Your task to perform on an android device: Open ESPN.com Image 0: 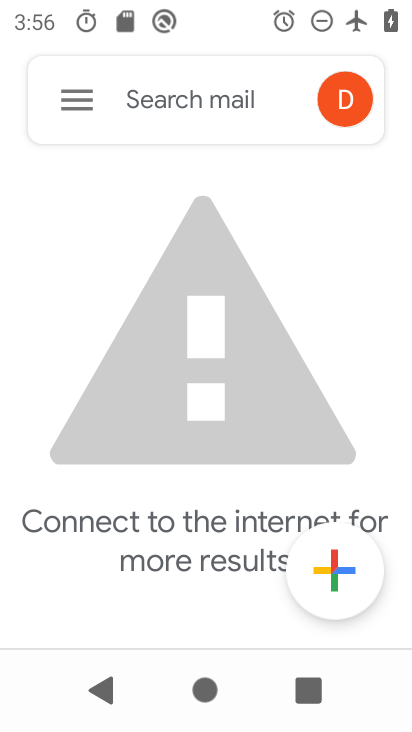
Step 0: press home button
Your task to perform on an android device: Open ESPN.com Image 1: 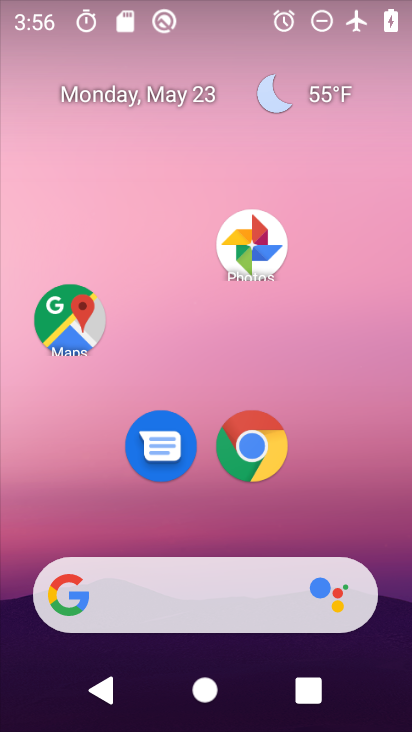
Step 1: click (225, 451)
Your task to perform on an android device: Open ESPN.com Image 2: 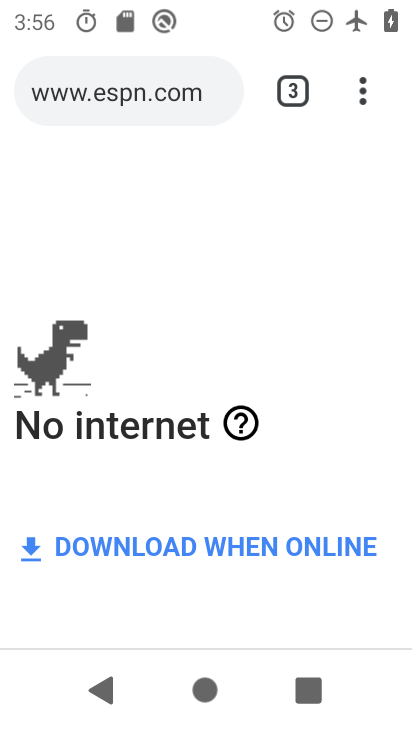
Step 2: task complete